Your task to perform on an android device: Open settings on Google Maps Image 0: 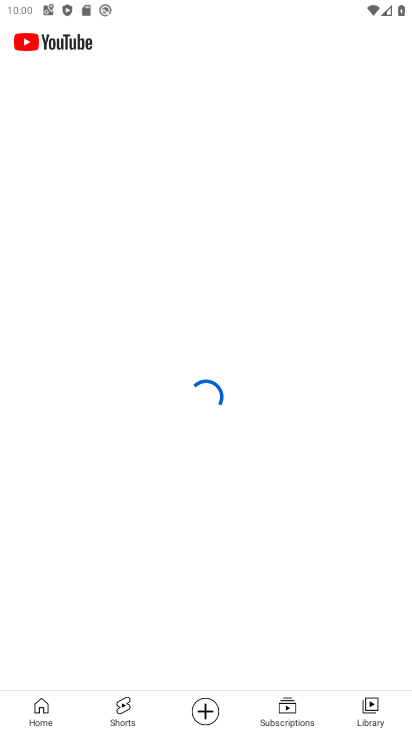
Step 0: drag from (220, 627) to (210, 423)
Your task to perform on an android device: Open settings on Google Maps Image 1: 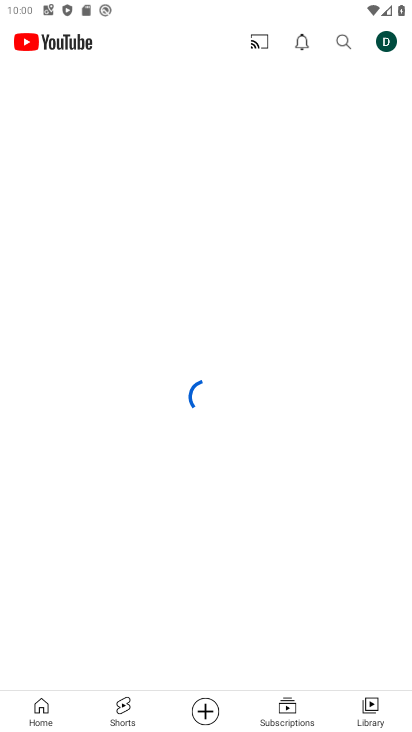
Step 1: press home button
Your task to perform on an android device: Open settings on Google Maps Image 2: 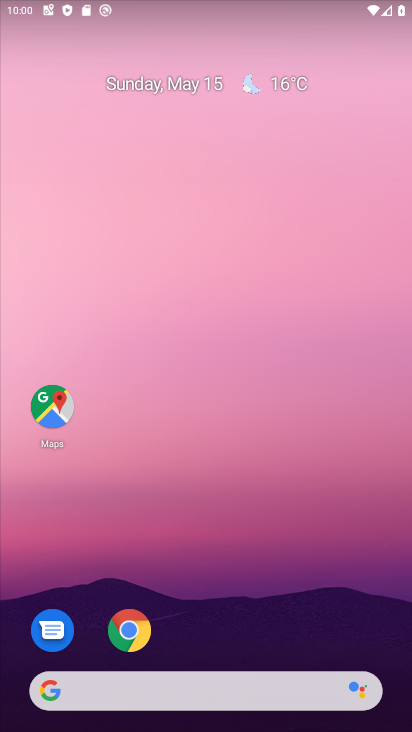
Step 2: drag from (214, 632) to (213, 573)
Your task to perform on an android device: Open settings on Google Maps Image 3: 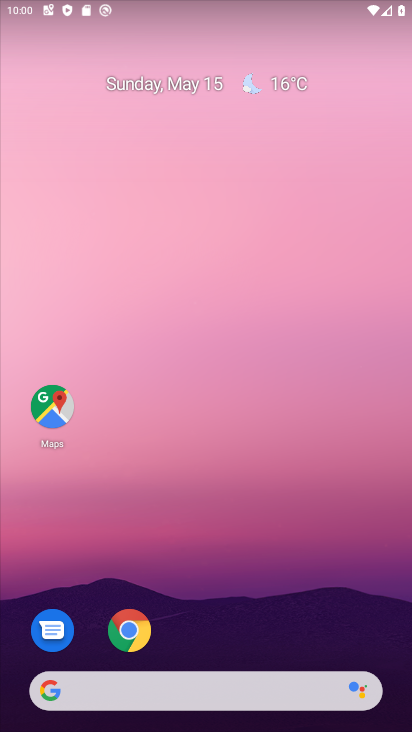
Step 3: click (41, 413)
Your task to perform on an android device: Open settings on Google Maps Image 4: 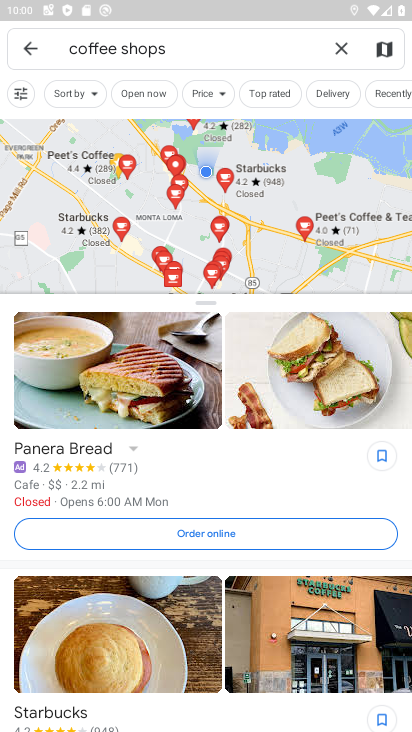
Step 4: click (344, 49)
Your task to perform on an android device: Open settings on Google Maps Image 5: 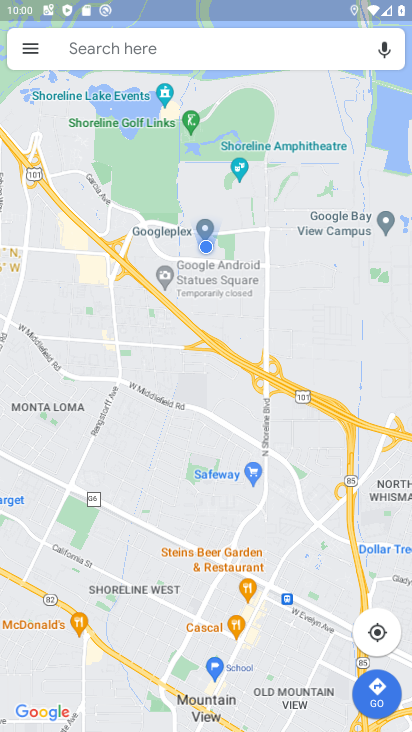
Step 5: click (35, 46)
Your task to perform on an android device: Open settings on Google Maps Image 6: 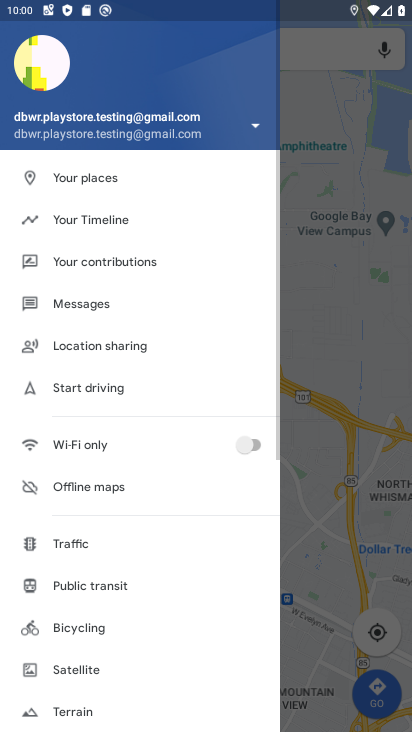
Step 6: drag from (135, 657) to (112, 388)
Your task to perform on an android device: Open settings on Google Maps Image 7: 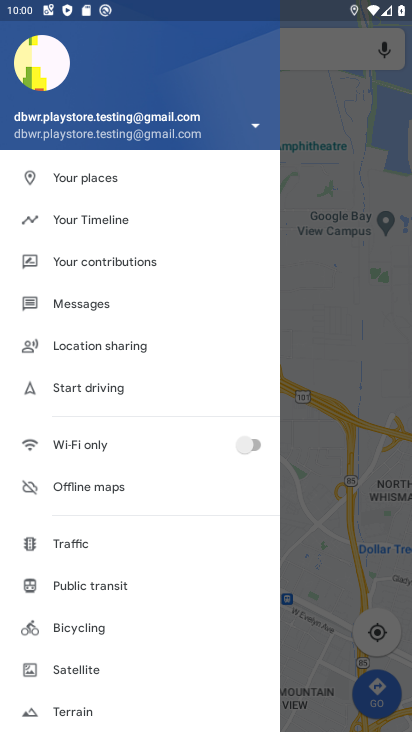
Step 7: drag from (108, 646) to (151, 340)
Your task to perform on an android device: Open settings on Google Maps Image 8: 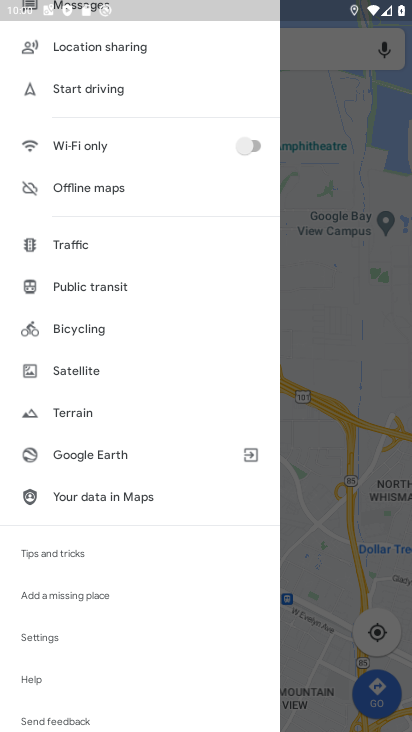
Step 8: drag from (110, 653) to (138, 415)
Your task to perform on an android device: Open settings on Google Maps Image 9: 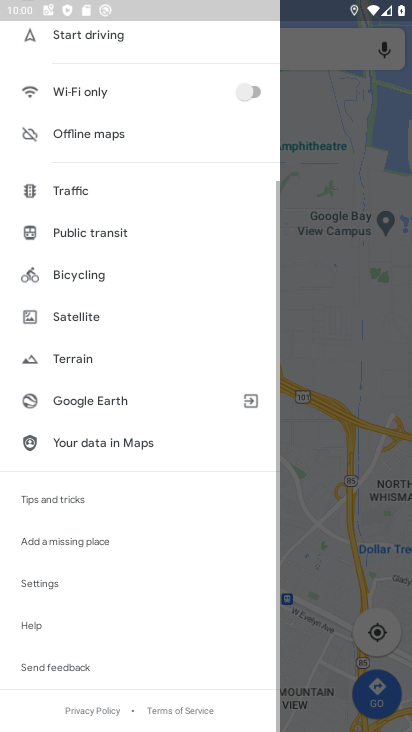
Step 9: click (50, 586)
Your task to perform on an android device: Open settings on Google Maps Image 10: 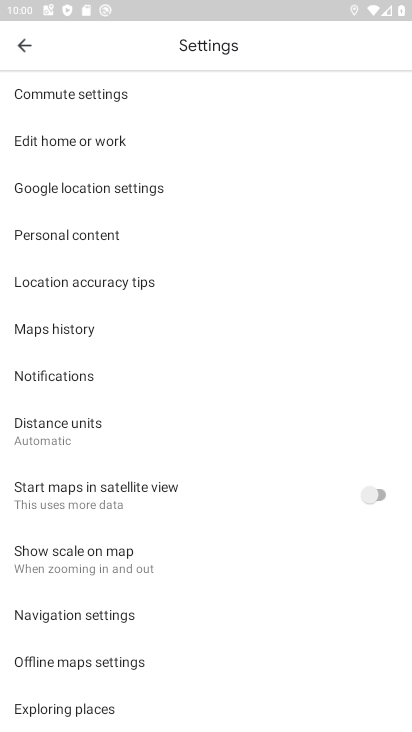
Step 10: task complete